Your task to perform on an android device: Find coffee shops on Maps Image 0: 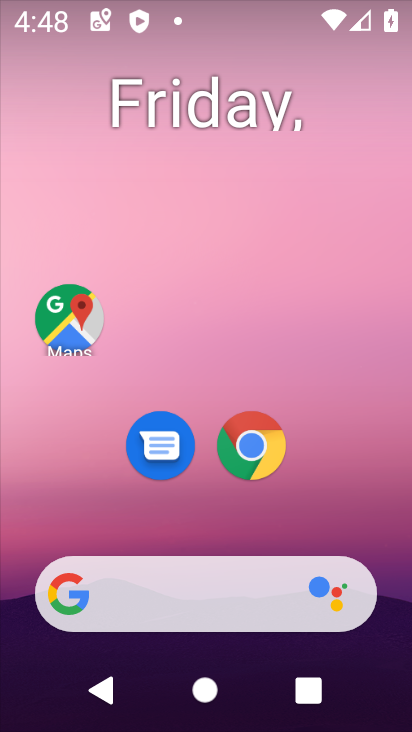
Step 0: drag from (363, 497) to (349, 166)
Your task to perform on an android device: Find coffee shops on Maps Image 1: 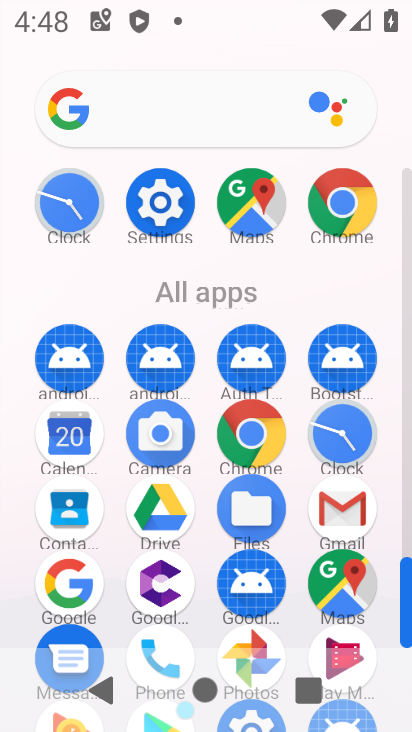
Step 1: click (260, 195)
Your task to perform on an android device: Find coffee shops on Maps Image 2: 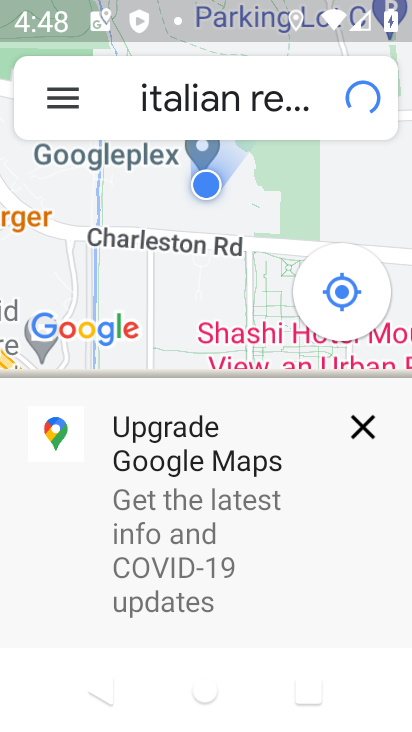
Step 2: click (261, 112)
Your task to perform on an android device: Find coffee shops on Maps Image 3: 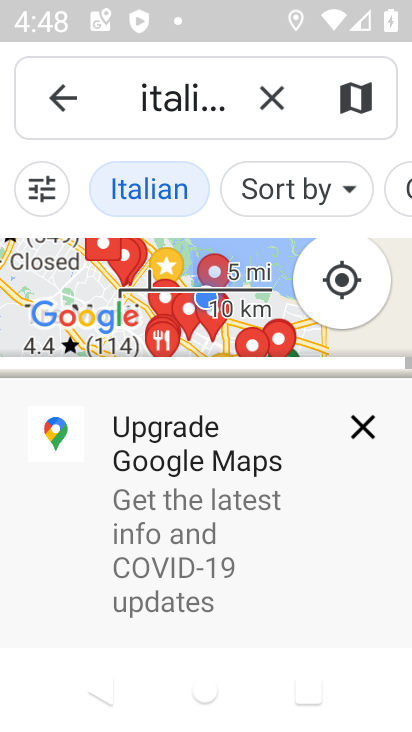
Step 3: click (280, 103)
Your task to perform on an android device: Find coffee shops on Maps Image 4: 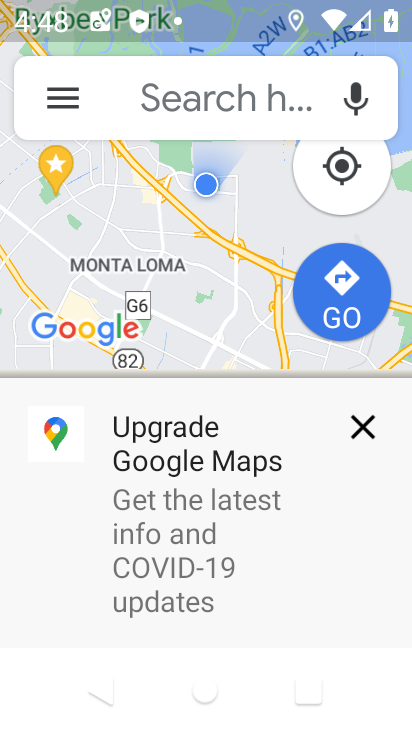
Step 4: click (280, 103)
Your task to perform on an android device: Find coffee shops on Maps Image 5: 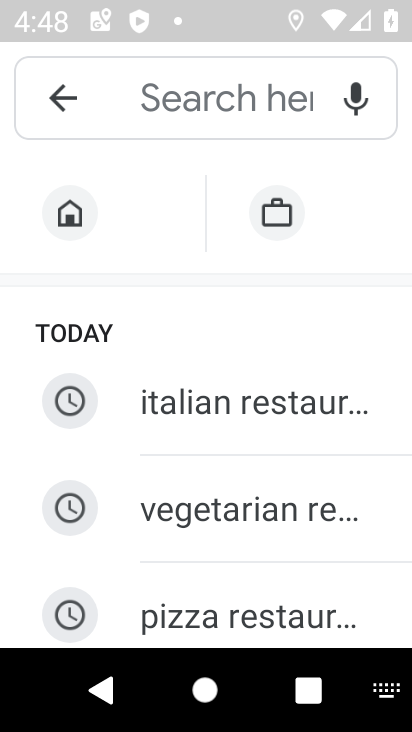
Step 5: type "coffee"
Your task to perform on an android device: Find coffee shops on Maps Image 6: 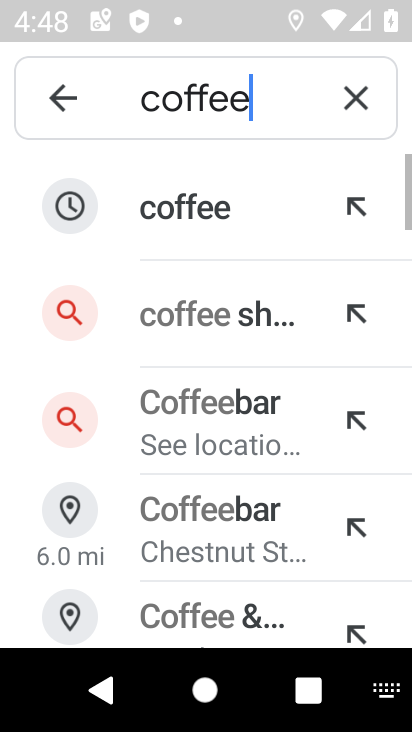
Step 6: click (214, 239)
Your task to perform on an android device: Find coffee shops on Maps Image 7: 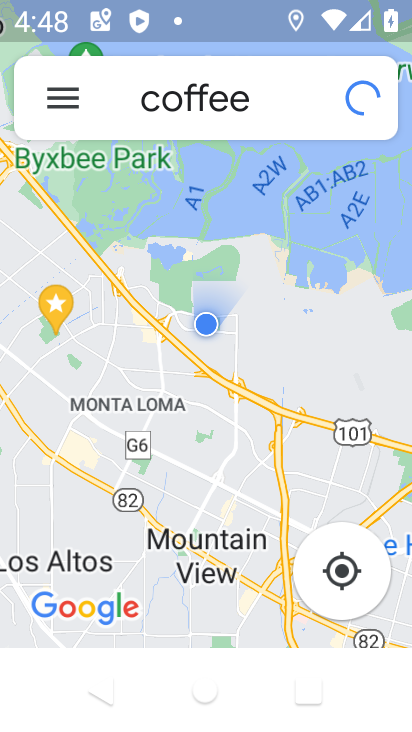
Step 7: task complete